Your task to perform on an android device: turn on showing notifications on the lock screen Image 0: 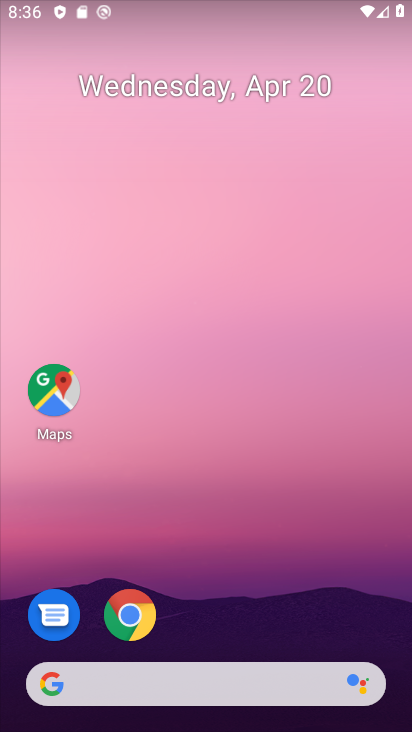
Step 0: drag from (232, 627) to (226, 64)
Your task to perform on an android device: turn on showing notifications on the lock screen Image 1: 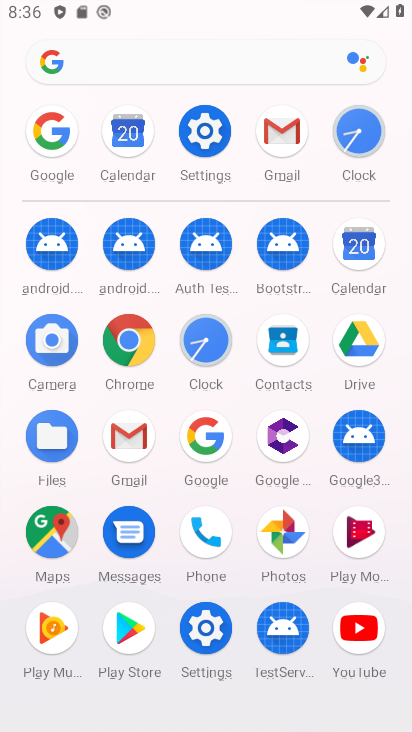
Step 1: click (204, 130)
Your task to perform on an android device: turn on showing notifications on the lock screen Image 2: 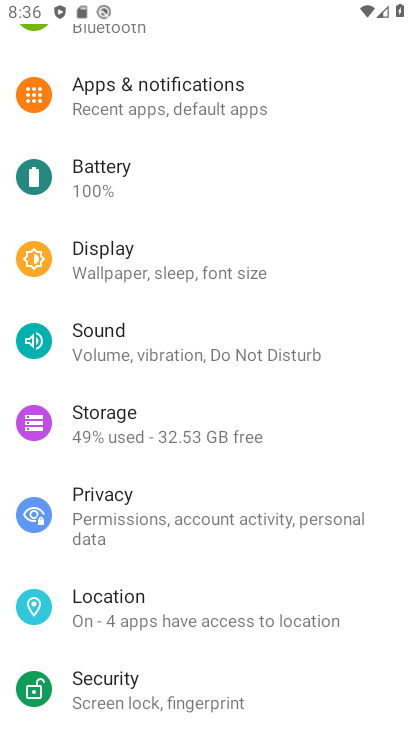
Step 2: click (205, 83)
Your task to perform on an android device: turn on showing notifications on the lock screen Image 3: 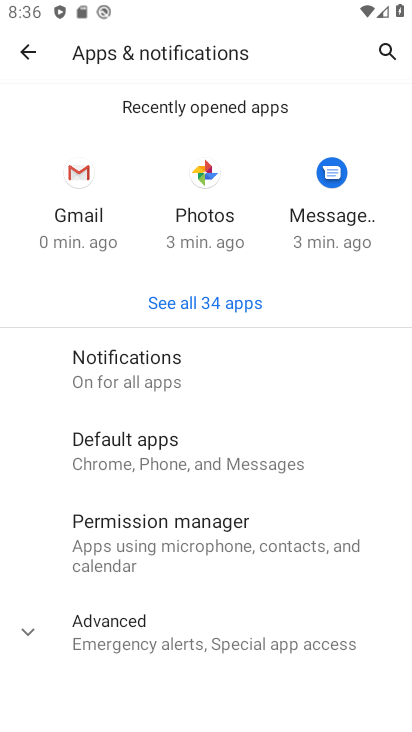
Step 3: click (146, 361)
Your task to perform on an android device: turn on showing notifications on the lock screen Image 4: 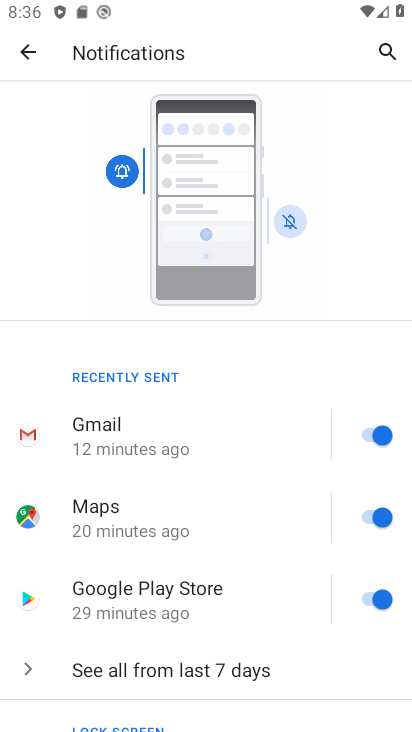
Step 4: drag from (208, 498) to (258, 379)
Your task to perform on an android device: turn on showing notifications on the lock screen Image 5: 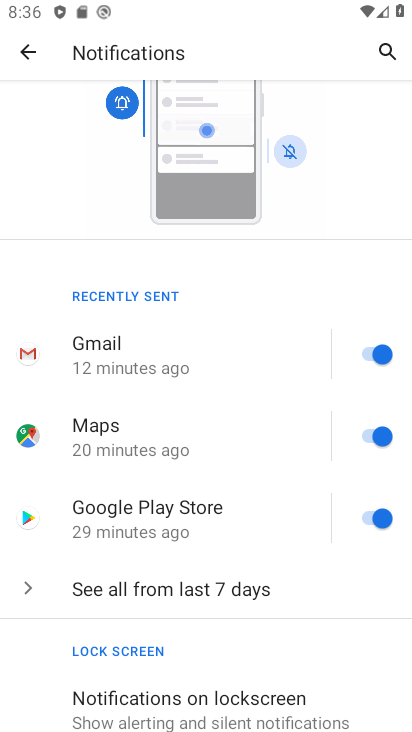
Step 5: drag from (178, 476) to (229, 373)
Your task to perform on an android device: turn on showing notifications on the lock screen Image 6: 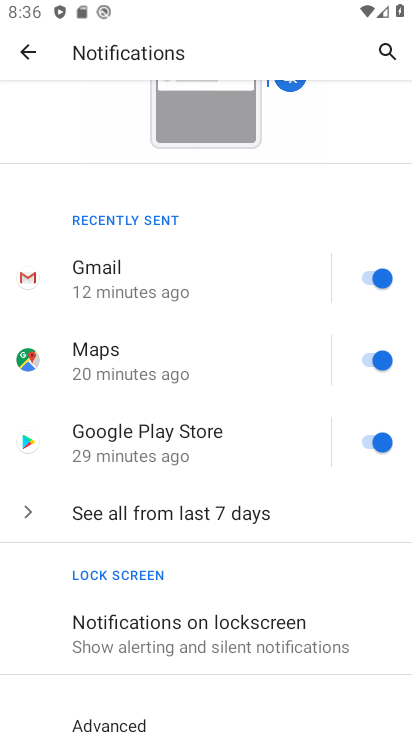
Step 6: drag from (156, 483) to (221, 360)
Your task to perform on an android device: turn on showing notifications on the lock screen Image 7: 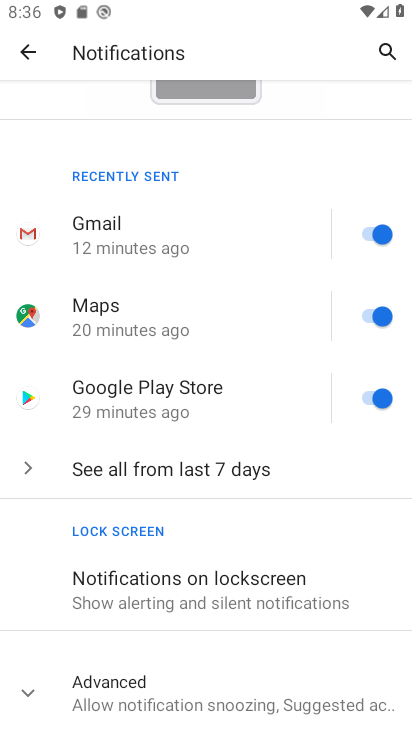
Step 7: click (209, 580)
Your task to perform on an android device: turn on showing notifications on the lock screen Image 8: 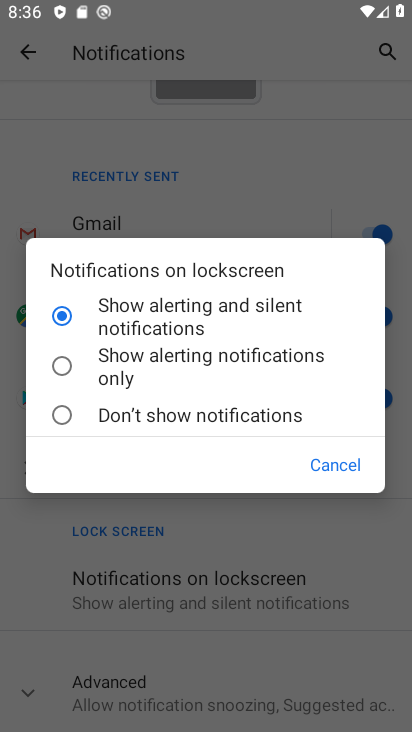
Step 8: click (57, 314)
Your task to perform on an android device: turn on showing notifications on the lock screen Image 9: 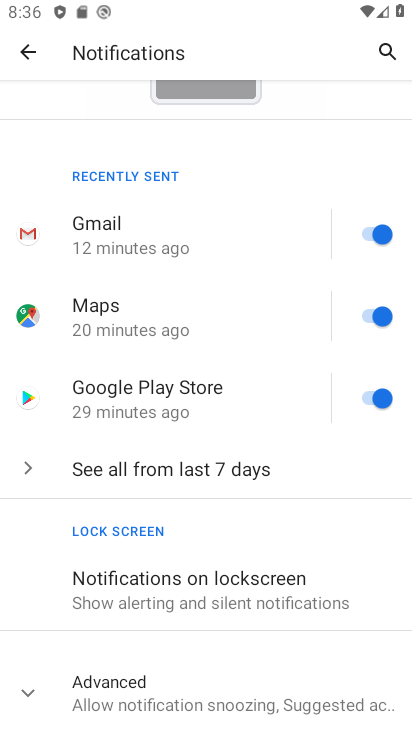
Step 9: task complete